Your task to perform on an android device: Open the Play Movies app and select the watchlist tab. Image 0: 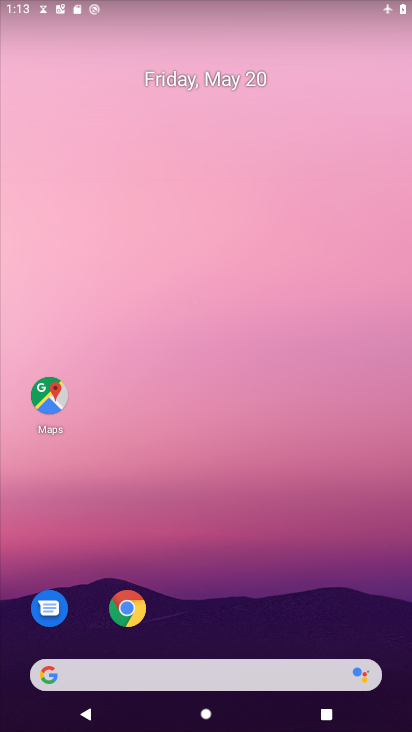
Step 0: drag from (229, 556) to (260, 284)
Your task to perform on an android device: Open the Play Movies app and select the watchlist tab. Image 1: 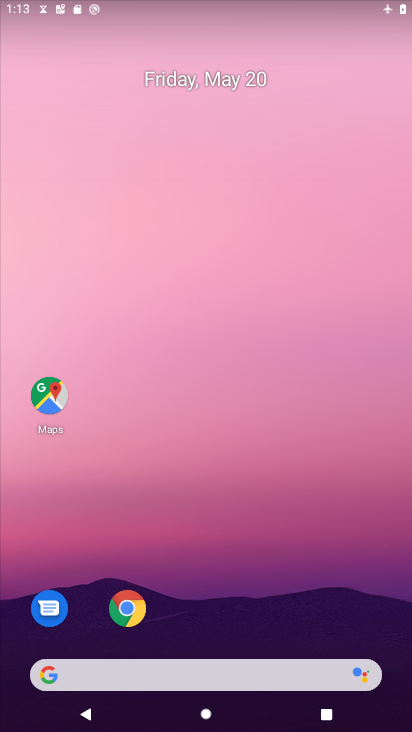
Step 1: drag from (291, 578) to (316, 82)
Your task to perform on an android device: Open the Play Movies app and select the watchlist tab. Image 2: 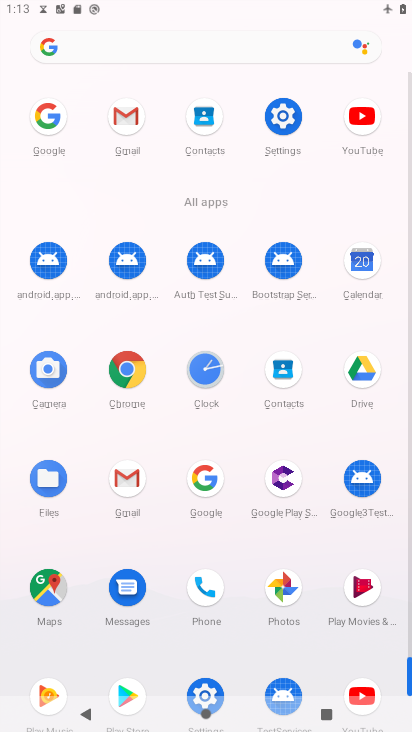
Step 2: click (361, 585)
Your task to perform on an android device: Open the Play Movies app and select the watchlist tab. Image 3: 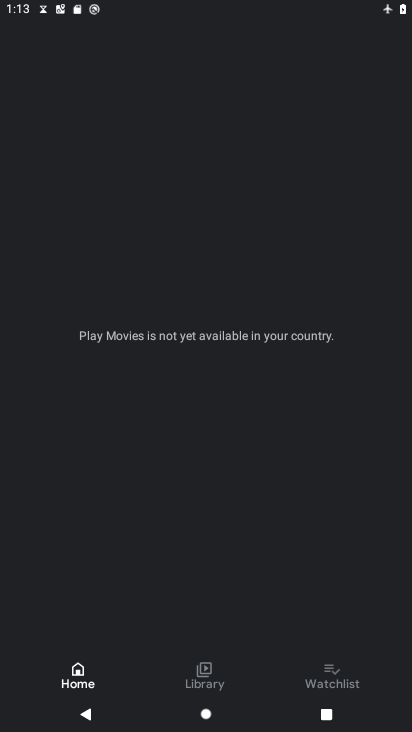
Step 3: click (343, 679)
Your task to perform on an android device: Open the Play Movies app and select the watchlist tab. Image 4: 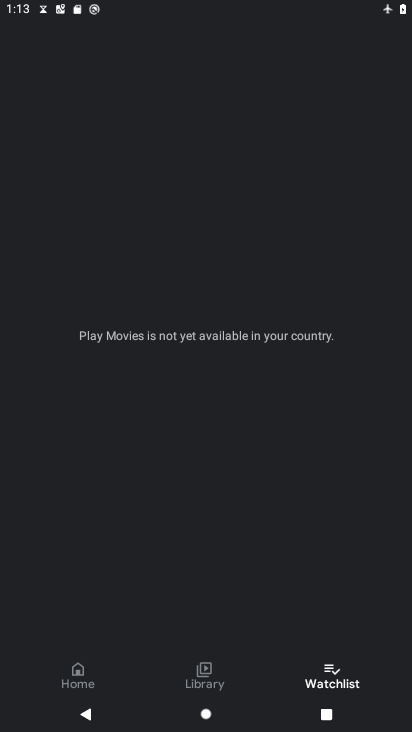
Step 4: task complete